Your task to perform on an android device: What's on my calendar today? Image 0: 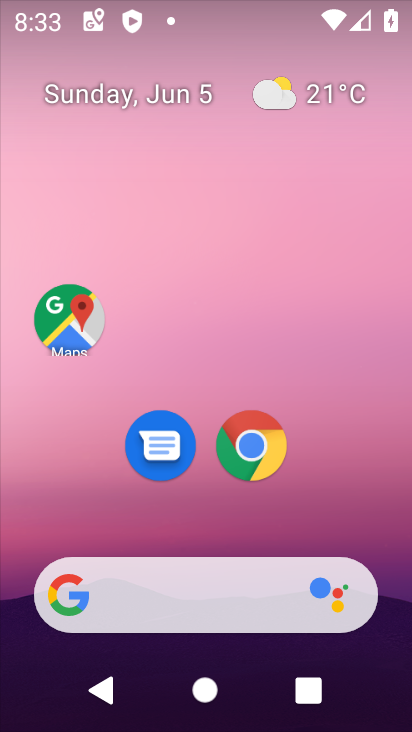
Step 0: drag from (350, 538) to (331, 130)
Your task to perform on an android device: What's on my calendar today? Image 1: 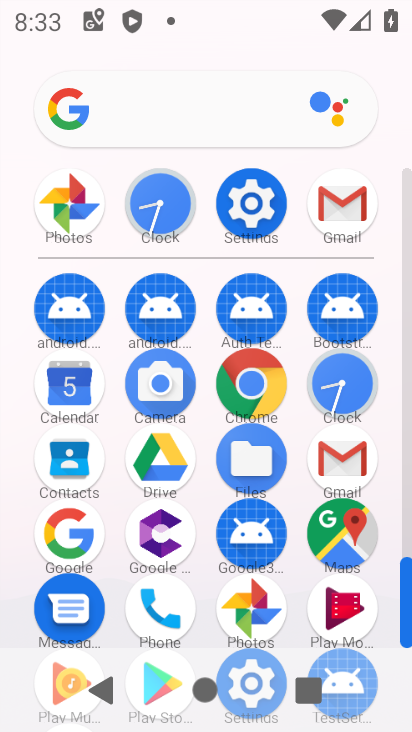
Step 1: click (63, 380)
Your task to perform on an android device: What's on my calendar today? Image 2: 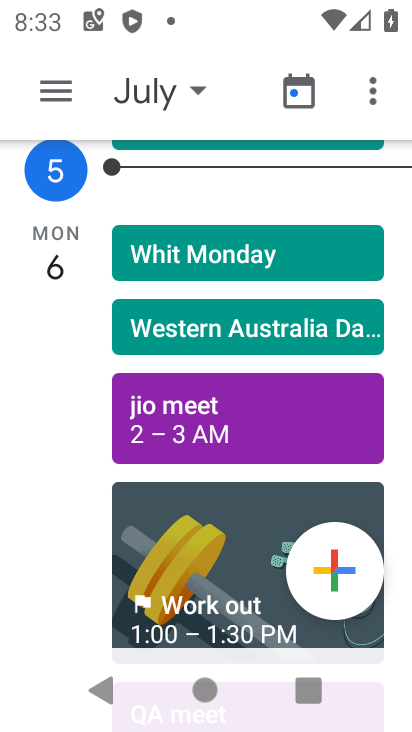
Step 2: click (60, 97)
Your task to perform on an android device: What's on my calendar today? Image 3: 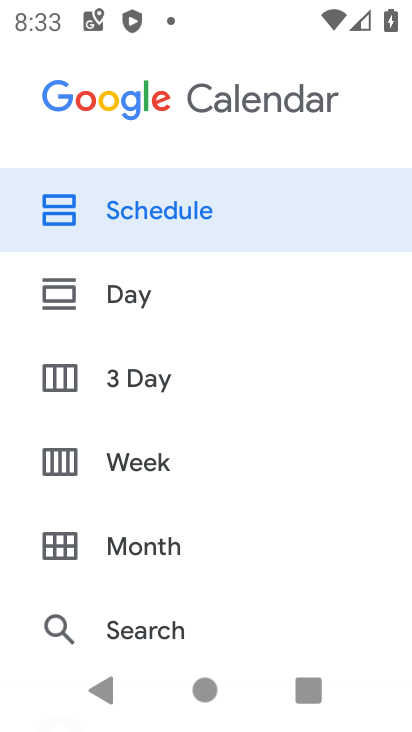
Step 3: click (171, 548)
Your task to perform on an android device: What's on my calendar today? Image 4: 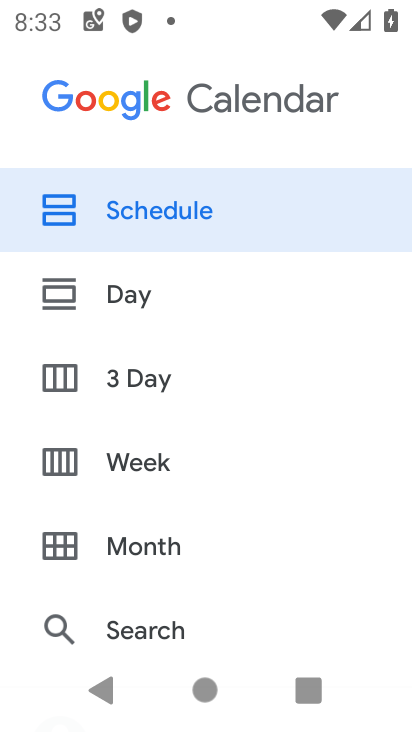
Step 4: click (135, 545)
Your task to perform on an android device: What's on my calendar today? Image 5: 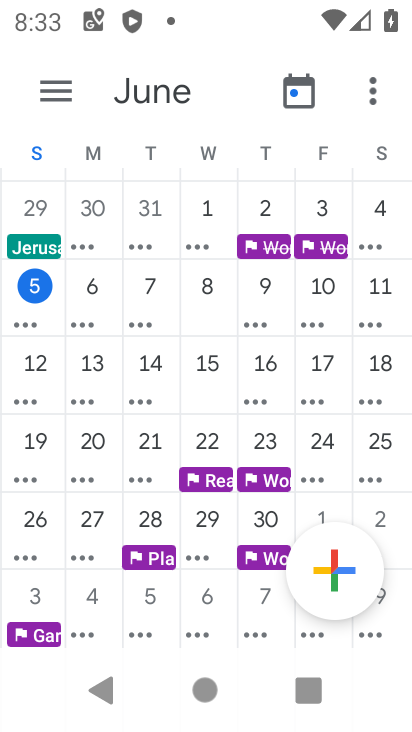
Step 5: drag from (60, 373) to (400, 367)
Your task to perform on an android device: What's on my calendar today? Image 6: 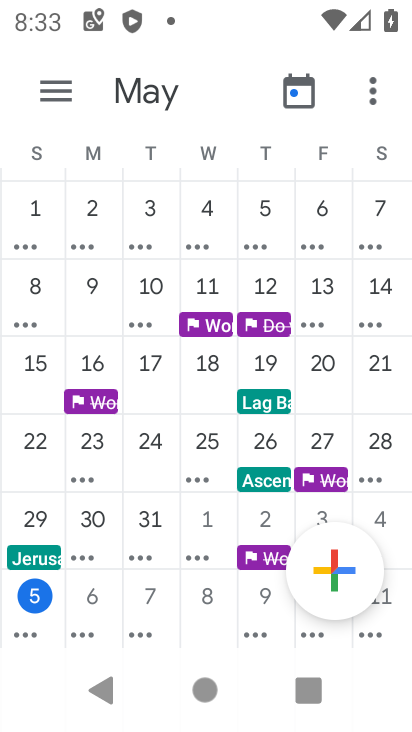
Step 6: drag from (349, 312) to (47, 310)
Your task to perform on an android device: What's on my calendar today? Image 7: 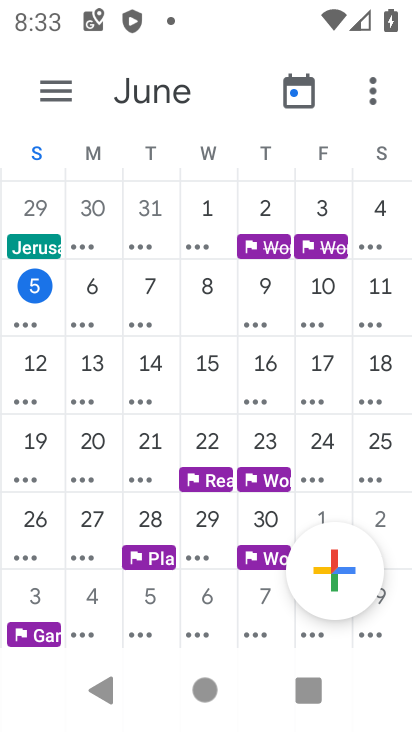
Step 7: click (71, 307)
Your task to perform on an android device: What's on my calendar today? Image 8: 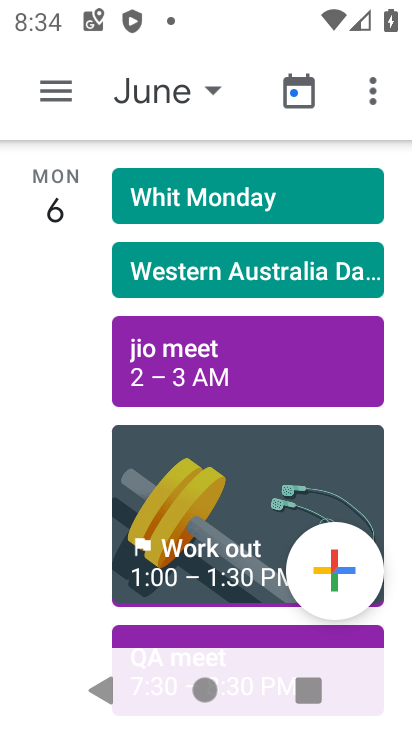
Step 8: task complete